Your task to perform on an android device: clear history in the chrome app Image 0: 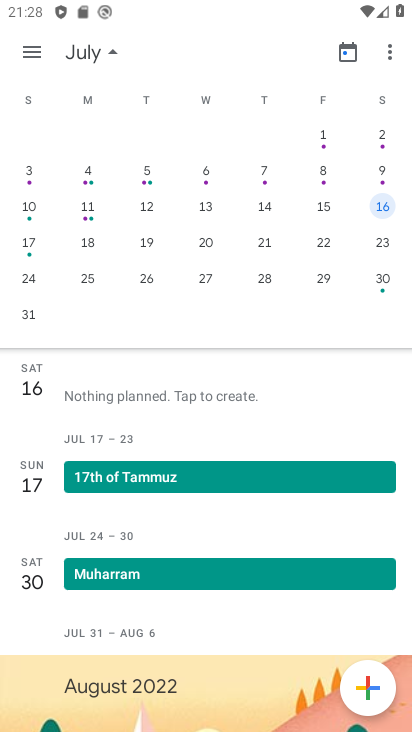
Step 0: press home button
Your task to perform on an android device: clear history in the chrome app Image 1: 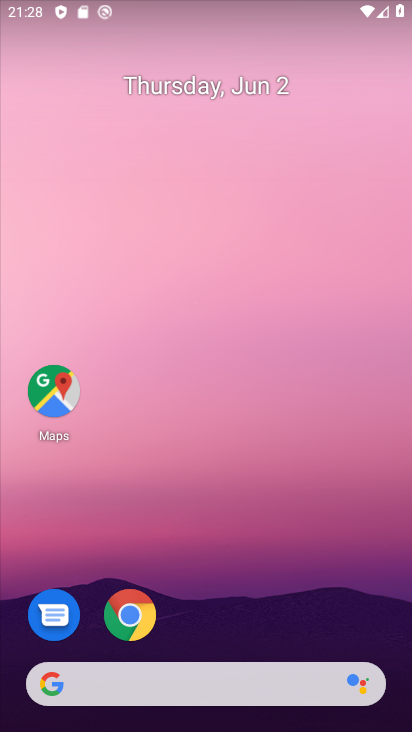
Step 1: drag from (156, 645) to (193, 240)
Your task to perform on an android device: clear history in the chrome app Image 2: 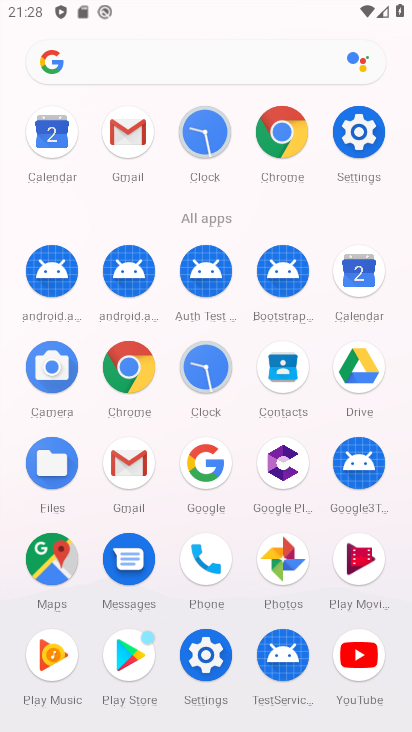
Step 2: click (125, 368)
Your task to perform on an android device: clear history in the chrome app Image 3: 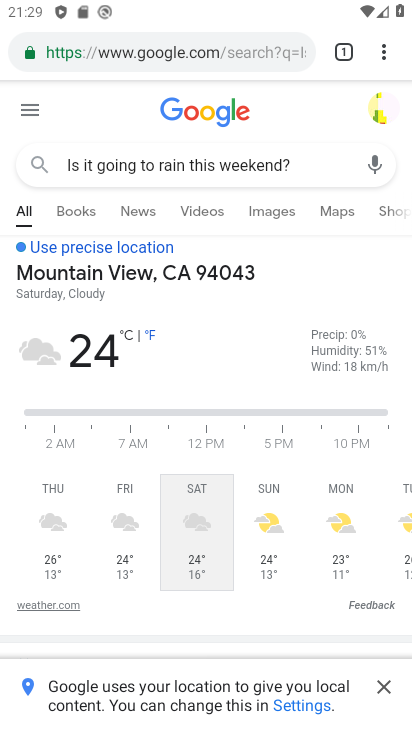
Step 3: click (383, 53)
Your task to perform on an android device: clear history in the chrome app Image 4: 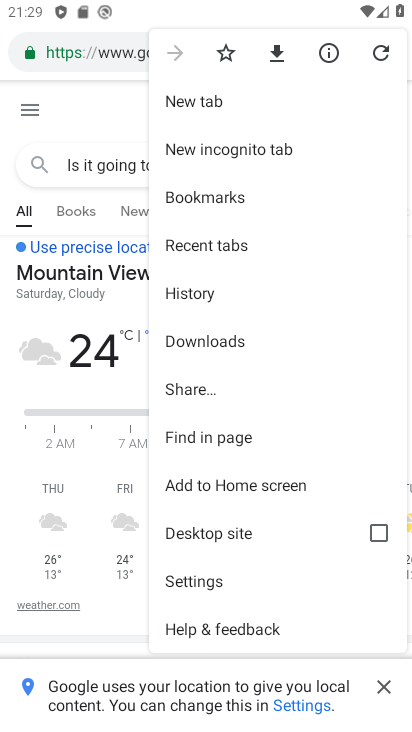
Step 4: click (188, 301)
Your task to perform on an android device: clear history in the chrome app Image 5: 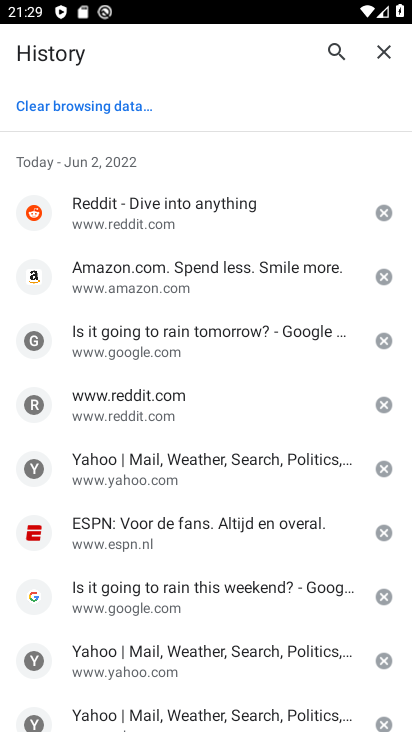
Step 5: click (101, 111)
Your task to perform on an android device: clear history in the chrome app Image 6: 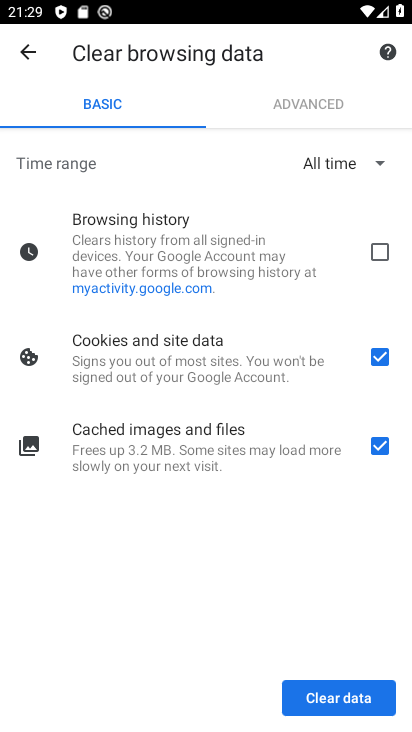
Step 6: click (377, 351)
Your task to perform on an android device: clear history in the chrome app Image 7: 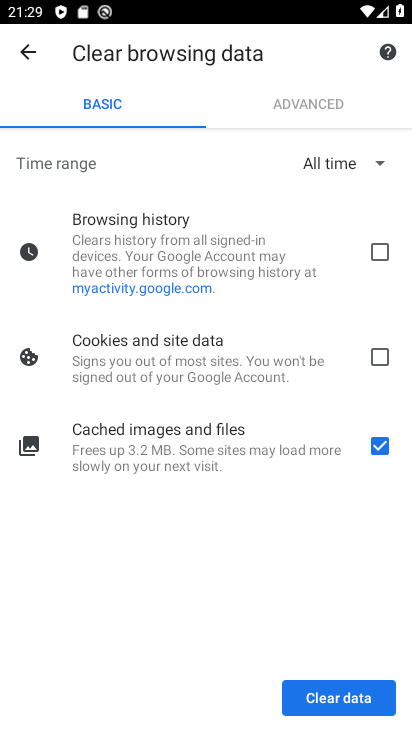
Step 7: click (377, 441)
Your task to perform on an android device: clear history in the chrome app Image 8: 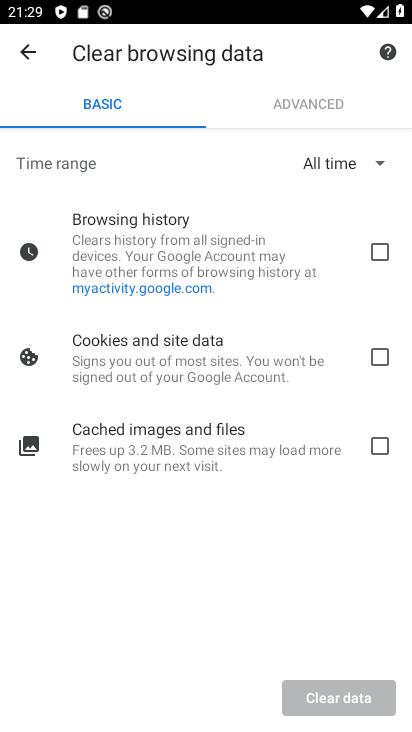
Step 8: click (373, 252)
Your task to perform on an android device: clear history in the chrome app Image 9: 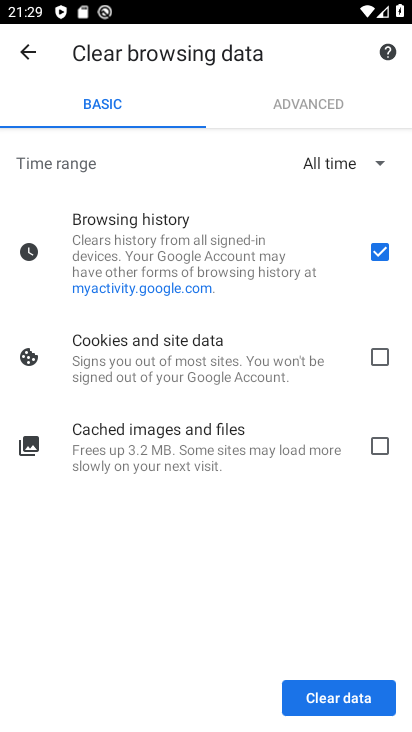
Step 9: click (292, 707)
Your task to perform on an android device: clear history in the chrome app Image 10: 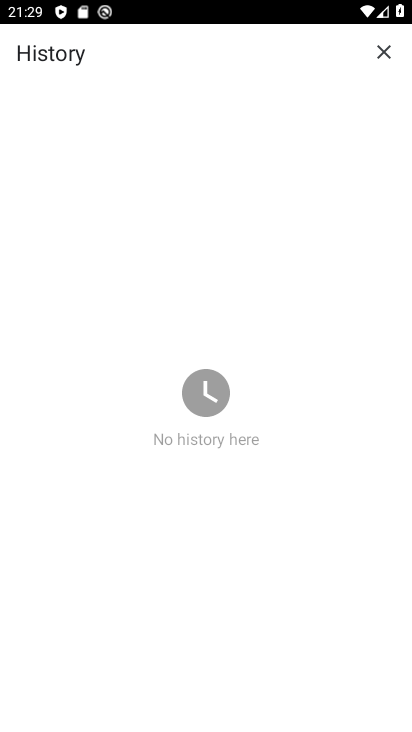
Step 10: task complete